Your task to perform on an android device: Open settings Image 0: 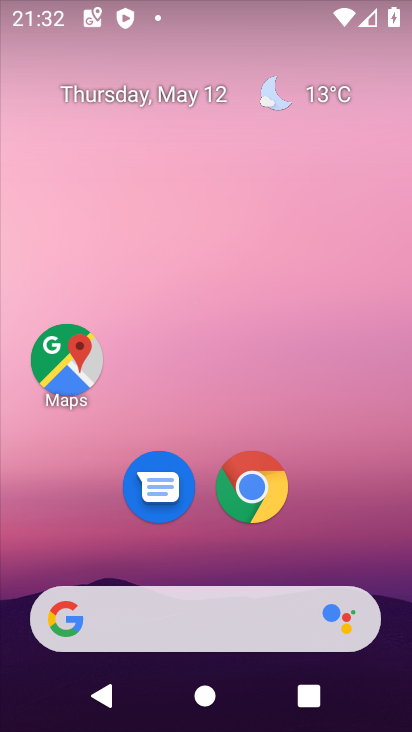
Step 0: drag from (198, 569) to (207, 107)
Your task to perform on an android device: Open settings Image 1: 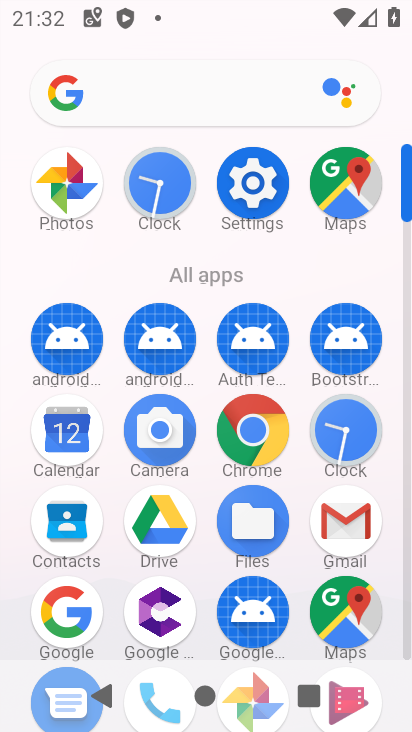
Step 1: click (263, 170)
Your task to perform on an android device: Open settings Image 2: 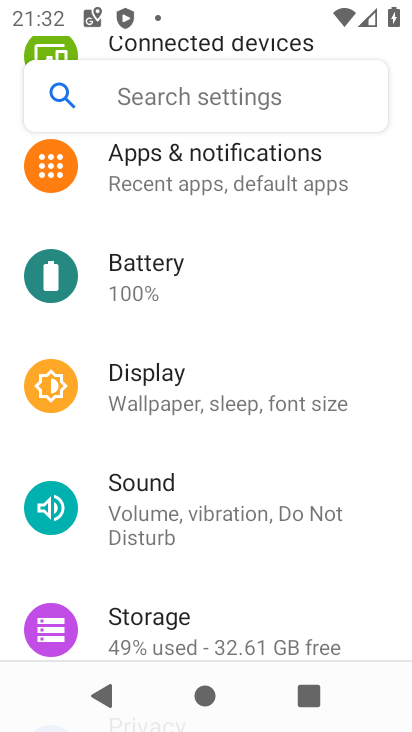
Step 2: task complete